Your task to perform on an android device: Open CNN.com Image 0: 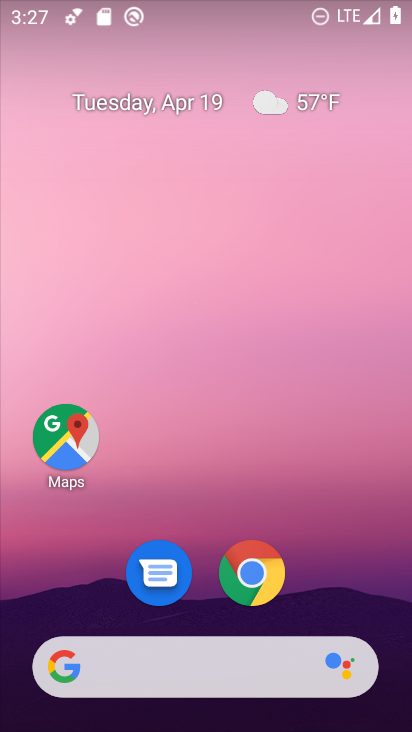
Step 0: click (265, 573)
Your task to perform on an android device: Open CNN.com Image 1: 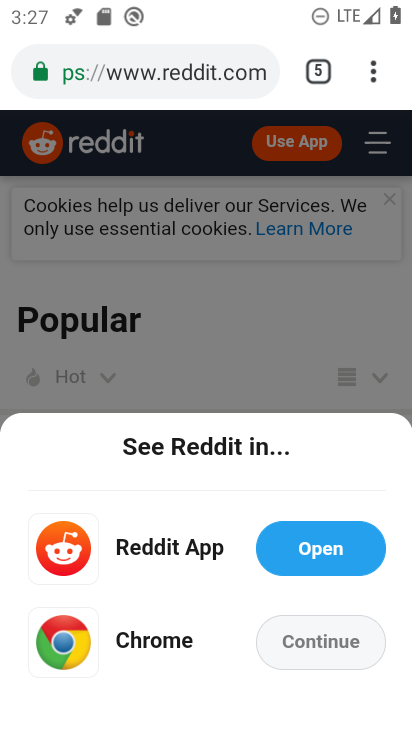
Step 1: click (244, 71)
Your task to perform on an android device: Open CNN.com Image 2: 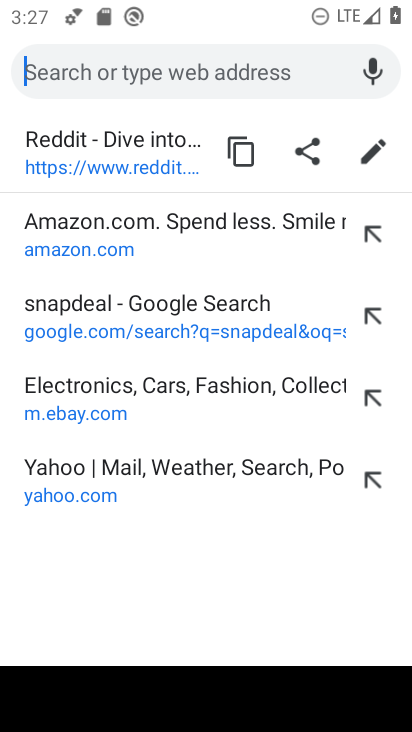
Step 2: type "cnn.com"
Your task to perform on an android device: Open CNN.com Image 3: 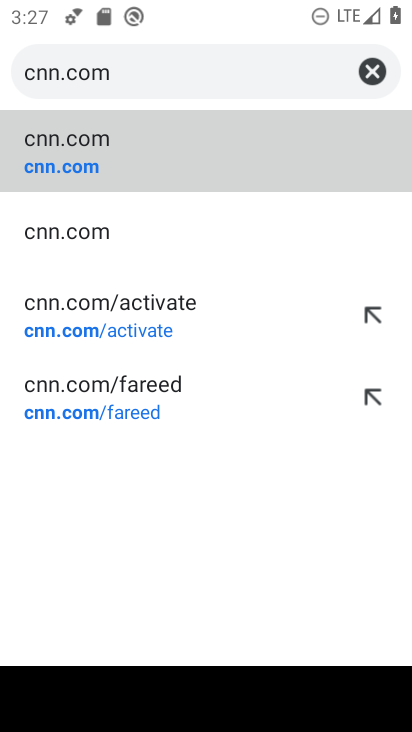
Step 3: click (58, 152)
Your task to perform on an android device: Open CNN.com Image 4: 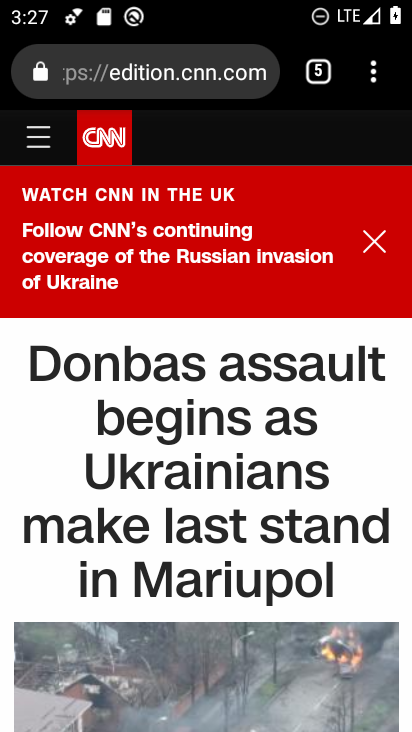
Step 4: task complete